Your task to perform on an android device: set default search engine in the chrome app Image 0: 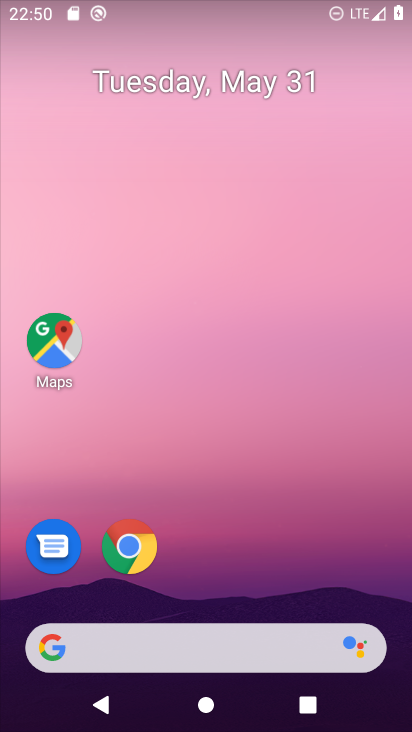
Step 0: click (142, 535)
Your task to perform on an android device: set default search engine in the chrome app Image 1: 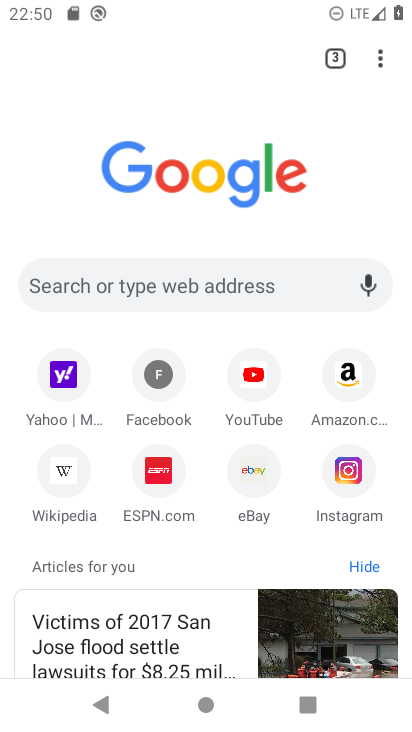
Step 1: click (375, 57)
Your task to perform on an android device: set default search engine in the chrome app Image 2: 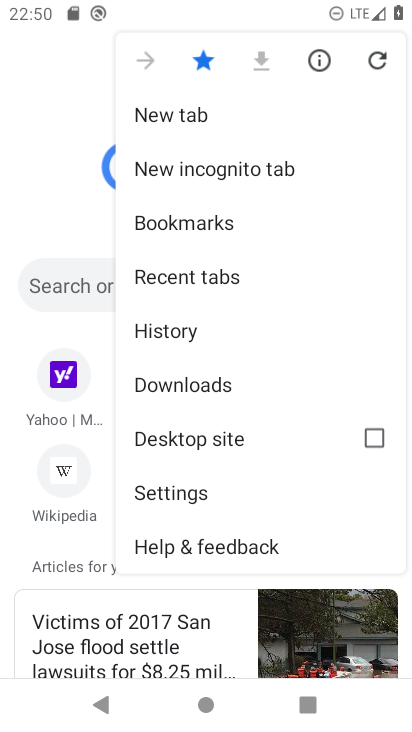
Step 2: click (198, 490)
Your task to perform on an android device: set default search engine in the chrome app Image 3: 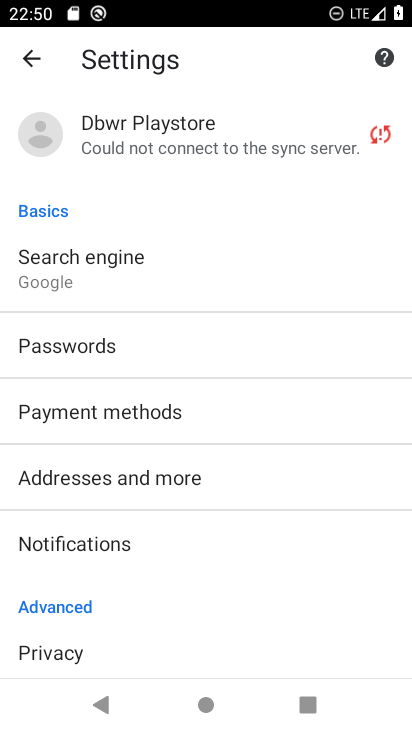
Step 3: click (90, 263)
Your task to perform on an android device: set default search engine in the chrome app Image 4: 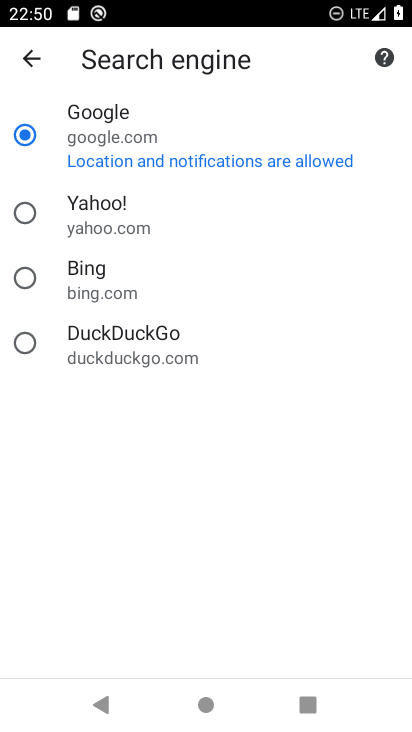
Step 4: task complete